Your task to perform on an android device: Open Wikipedia Image 0: 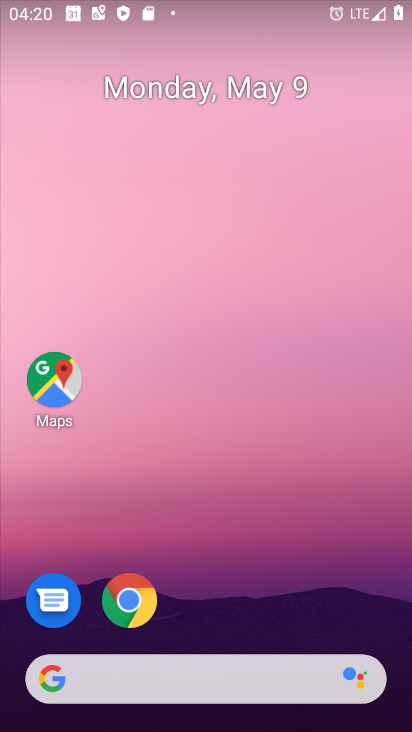
Step 0: drag from (276, 644) to (258, 170)
Your task to perform on an android device: Open Wikipedia Image 1: 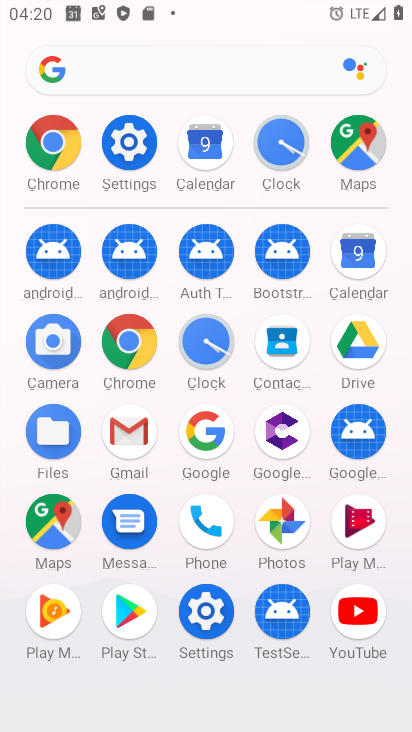
Step 1: click (134, 336)
Your task to perform on an android device: Open Wikipedia Image 2: 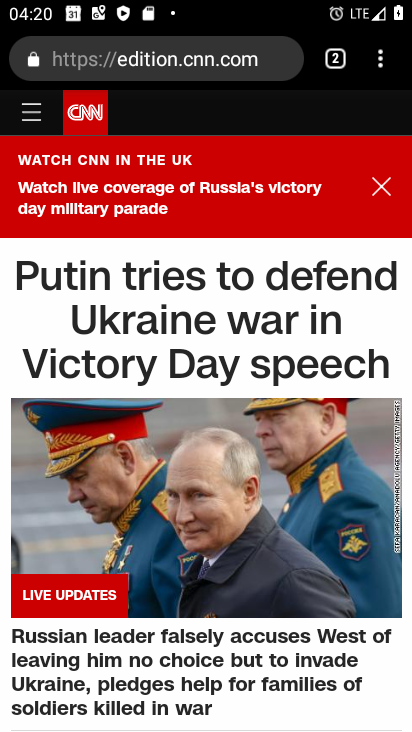
Step 2: click (229, 66)
Your task to perform on an android device: Open Wikipedia Image 3: 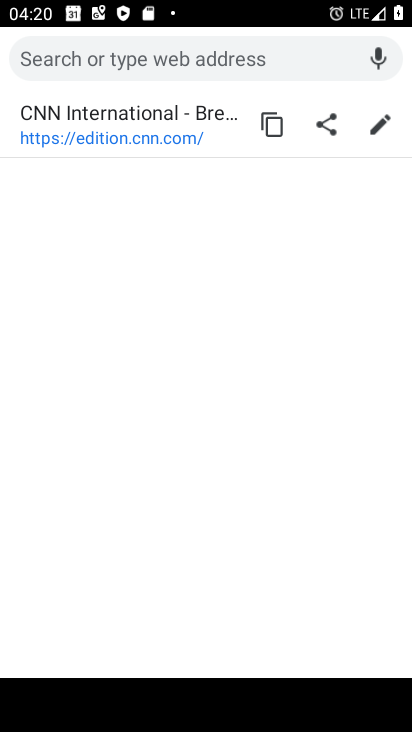
Step 3: type "wikipedia"
Your task to perform on an android device: Open Wikipedia Image 4: 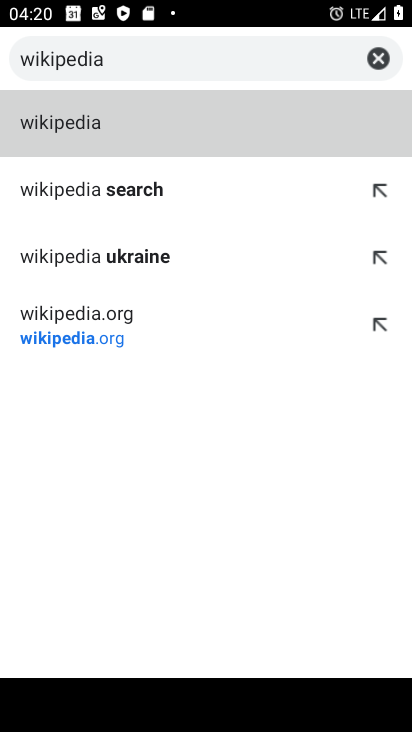
Step 4: click (94, 139)
Your task to perform on an android device: Open Wikipedia Image 5: 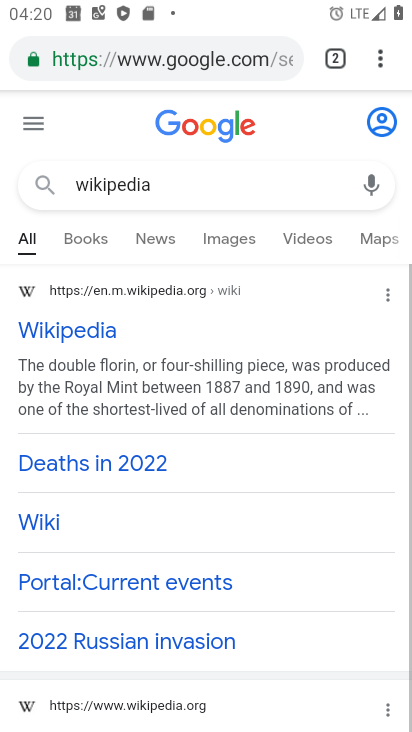
Step 5: task complete